Your task to perform on an android device: Open the stopwatch Image 0: 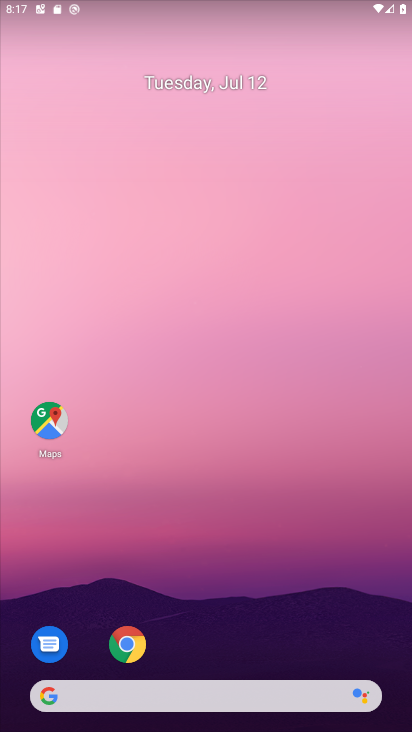
Step 0: drag from (300, 589) to (268, 6)
Your task to perform on an android device: Open the stopwatch Image 1: 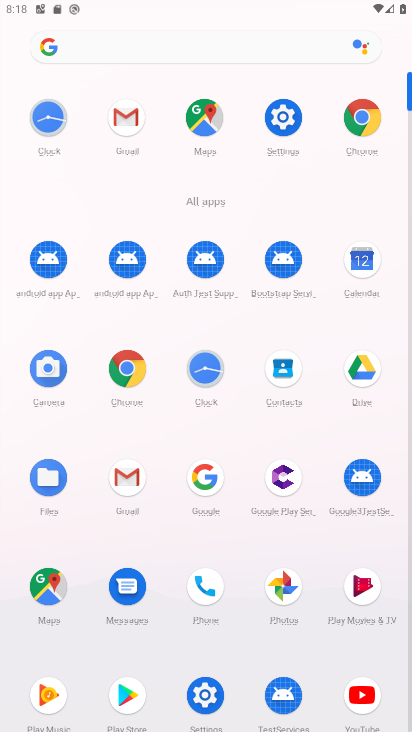
Step 1: click (201, 378)
Your task to perform on an android device: Open the stopwatch Image 2: 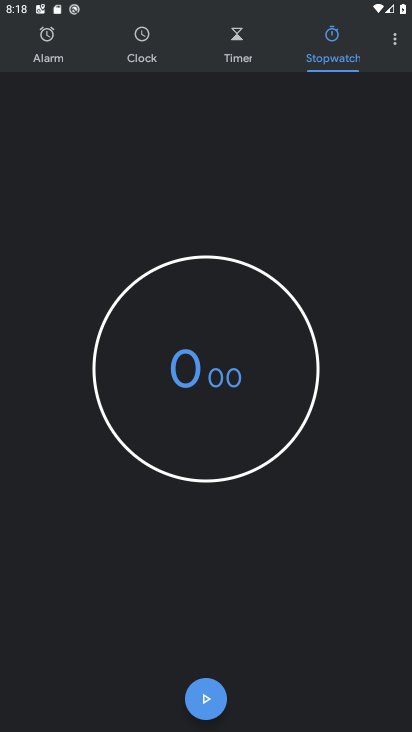
Step 2: task complete